Your task to perform on an android device: change timer sound Image 0: 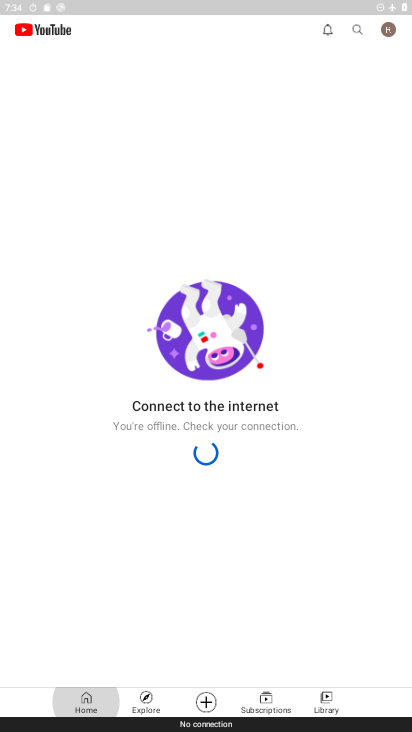
Step 0: press home button
Your task to perform on an android device: change timer sound Image 1: 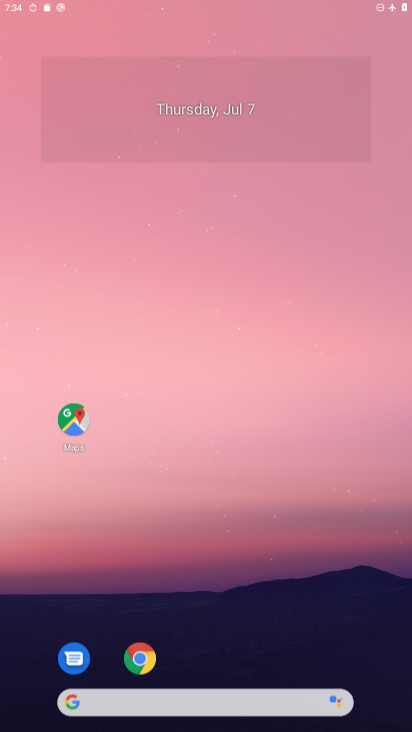
Step 1: drag from (337, 637) to (219, 1)
Your task to perform on an android device: change timer sound Image 2: 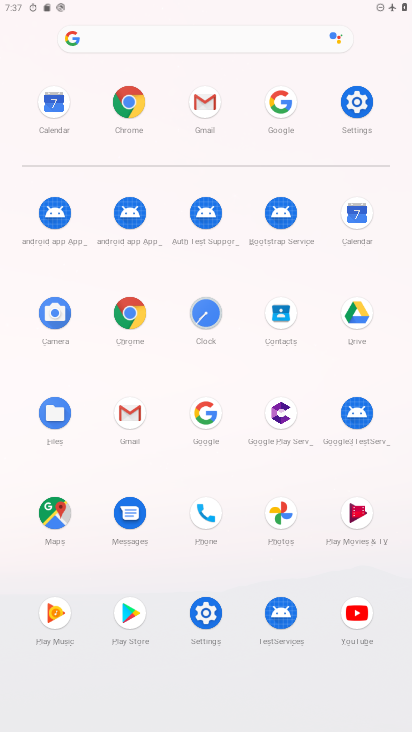
Step 2: click (213, 322)
Your task to perform on an android device: change timer sound Image 3: 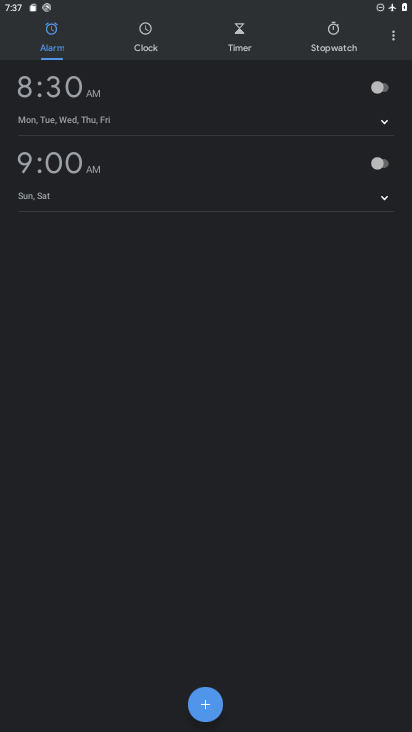
Step 3: click (387, 34)
Your task to perform on an android device: change timer sound Image 4: 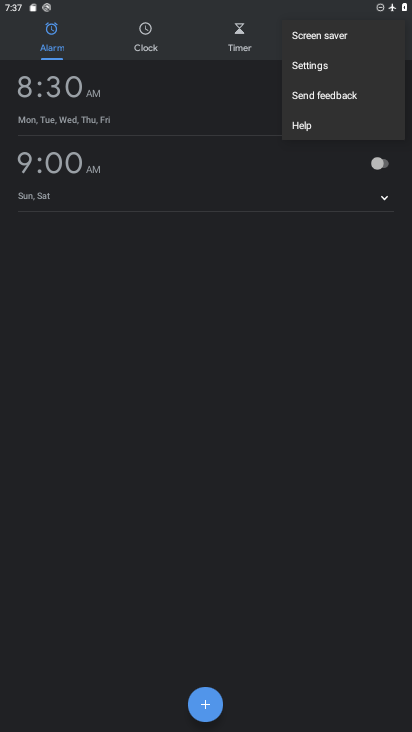
Step 4: click (340, 70)
Your task to perform on an android device: change timer sound Image 5: 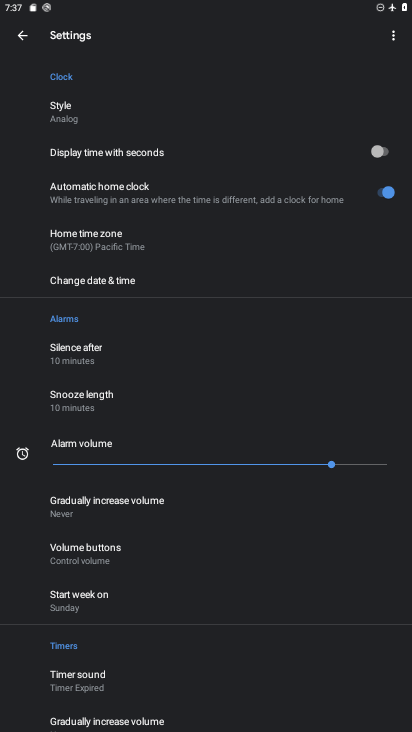
Step 5: click (104, 674)
Your task to perform on an android device: change timer sound Image 6: 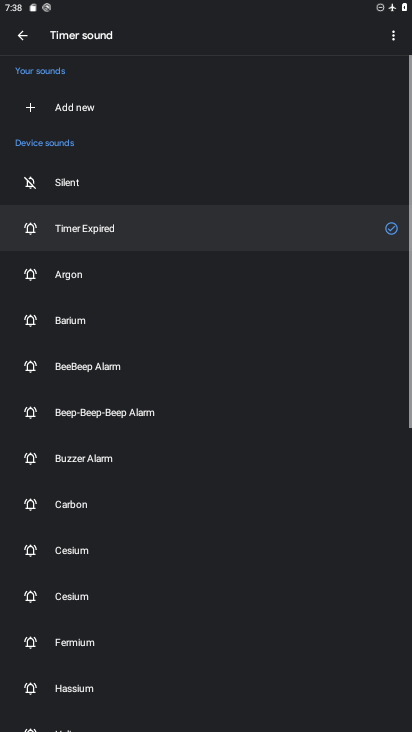
Step 6: click (85, 508)
Your task to perform on an android device: change timer sound Image 7: 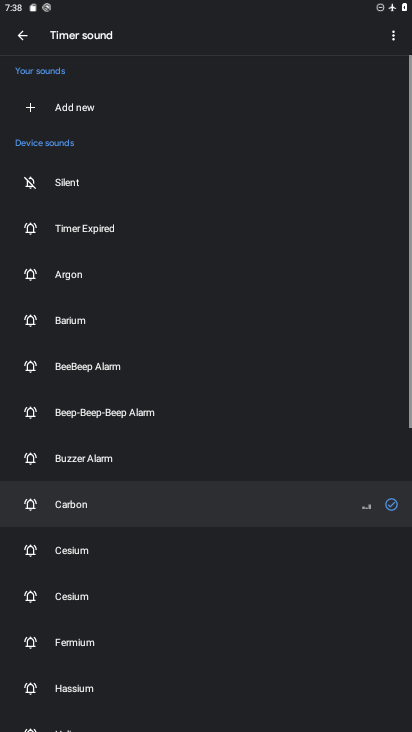
Step 7: task complete